Your task to perform on an android device: turn on the 12-hour format for clock Image 0: 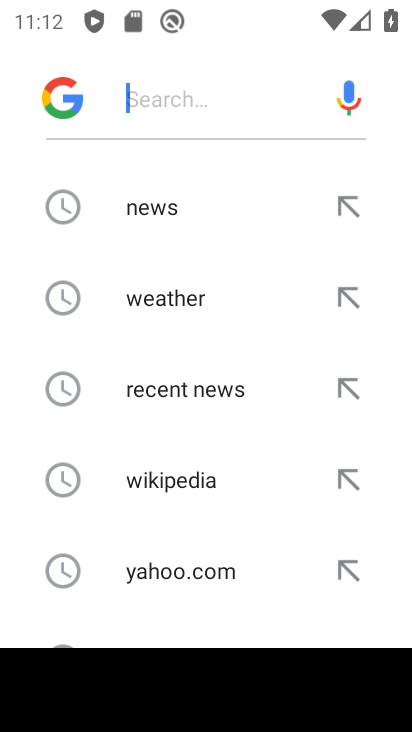
Step 0: press home button
Your task to perform on an android device: turn on the 12-hour format for clock Image 1: 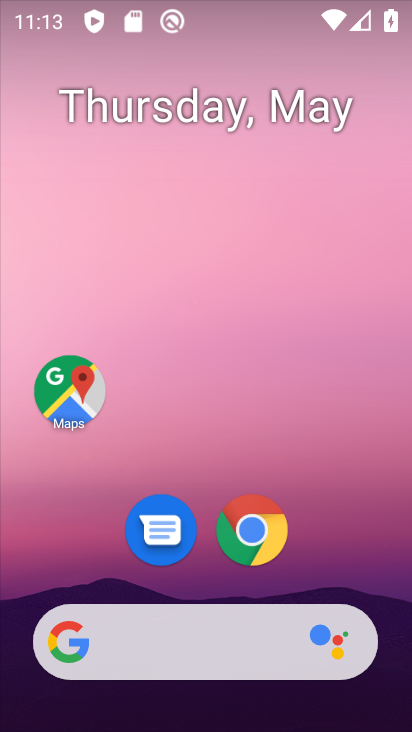
Step 1: drag from (282, 718) to (334, 23)
Your task to perform on an android device: turn on the 12-hour format for clock Image 2: 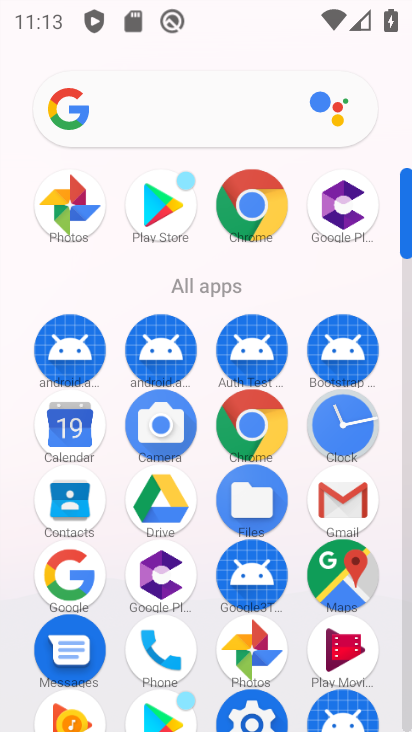
Step 2: drag from (262, 621) to (264, 110)
Your task to perform on an android device: turn on the 12-hour format for clock Image 3: 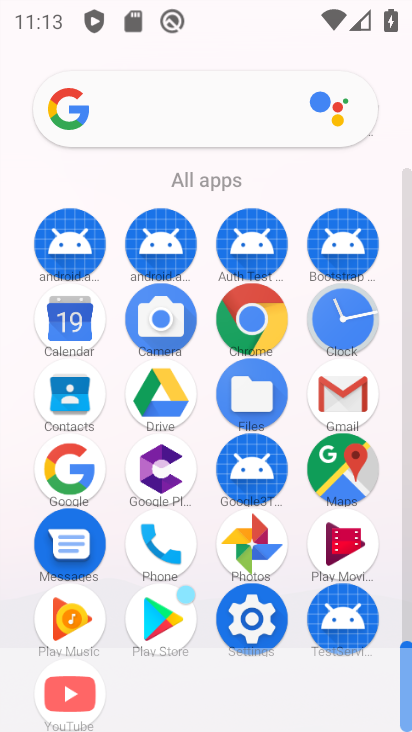
Step 3: click (245, 617)
Your task to perform on an android device: turn on the 12-hour format for clock Image 4: 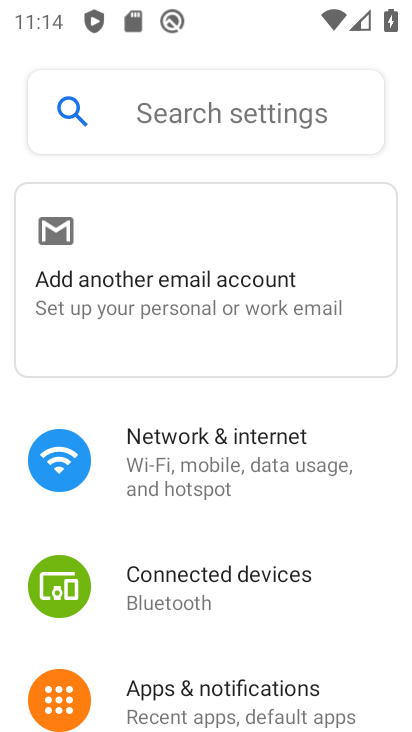
Step 4: press home button
Your task to perform on an android device: turn on the 12-hour format for clock Image 5: 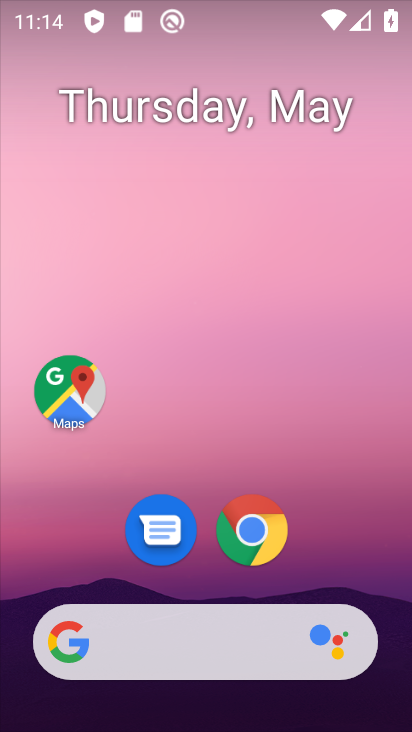
Step 5: drag from (134, 727) to (269, 0)
Your task to perform on an android device: turn on the 12-hour format for clock Image 6: 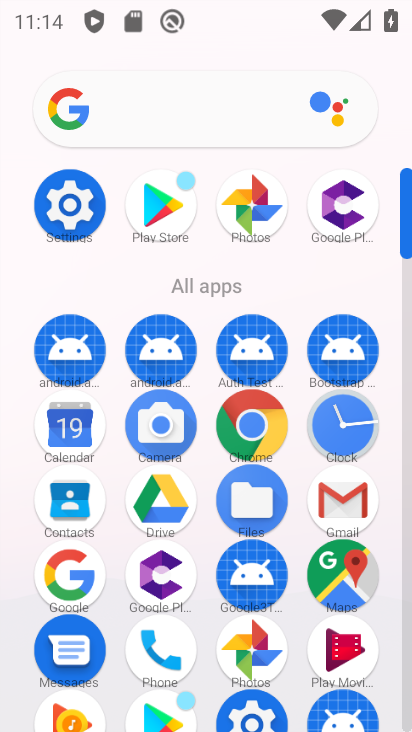
Step 6: click (351, 423)
Your task to perform on an android device: turn on the 12-hour format for clock Image 7: 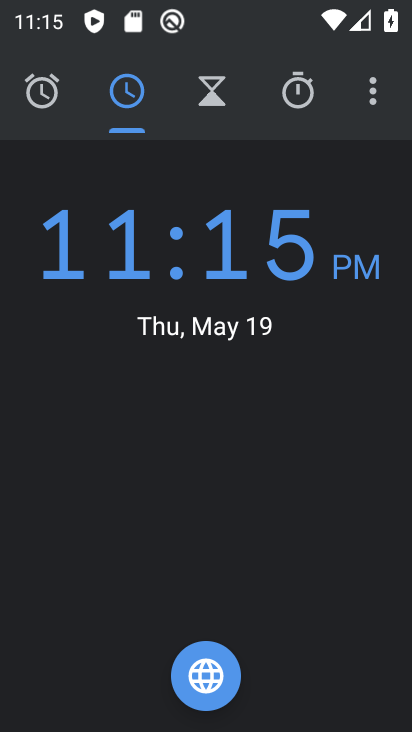
Step 7: click (370, 89)
Your task to perform on an android device: turn on the 12-hour format for clock Image 8: 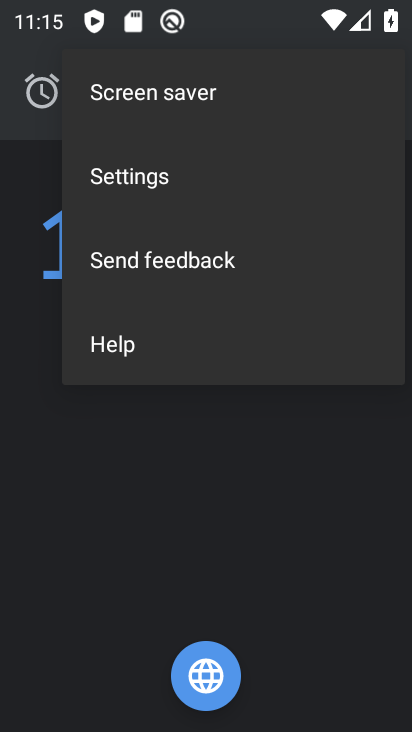
Step 8: click (116, 186)
Your task to perform on an android device: turn on the 12-hour format for clock Image 9: 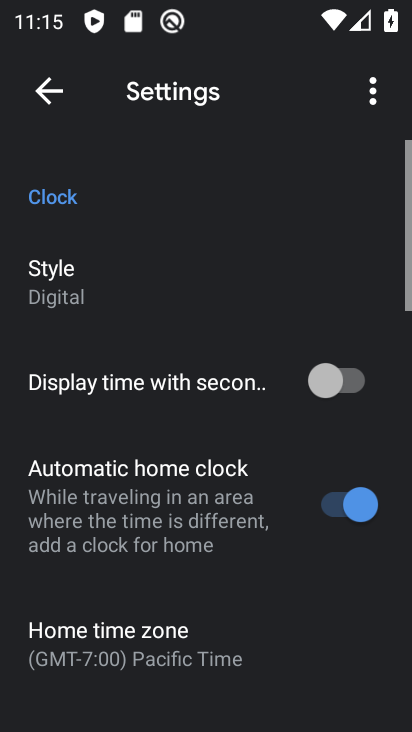
Step 9: drag from (277, 668) to (239, 21)
Your task to perform on an android device: turn on the 12-hour format for clock Image 10: 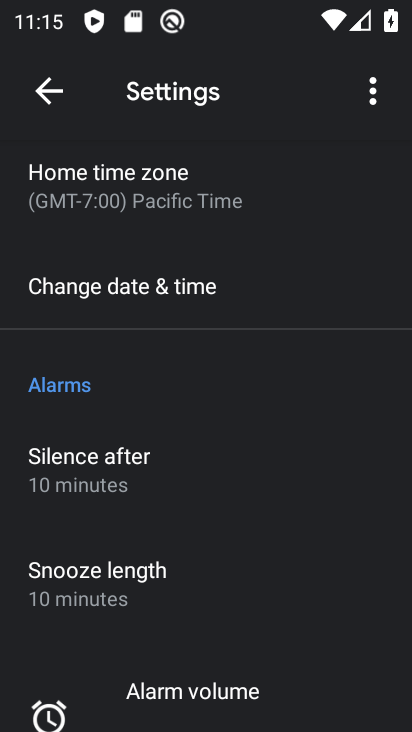
Step 10: click (217, 303)
Your task to perform on an android device: turn on the 12-hour format for clock Image 11: 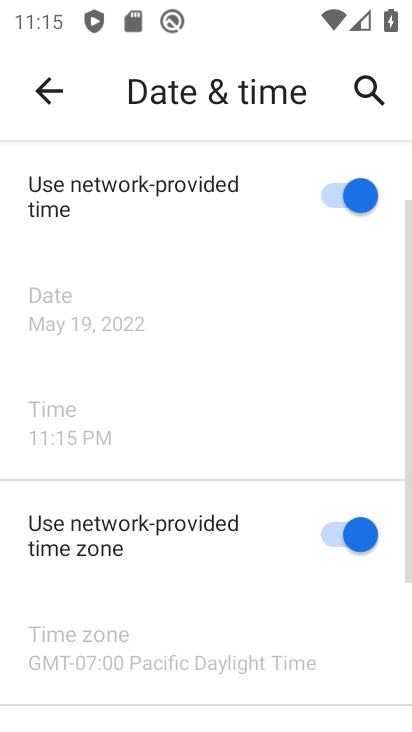
Step 11: task complete